Your task to perform on an android device: change the clock display to show seconds Image 0: 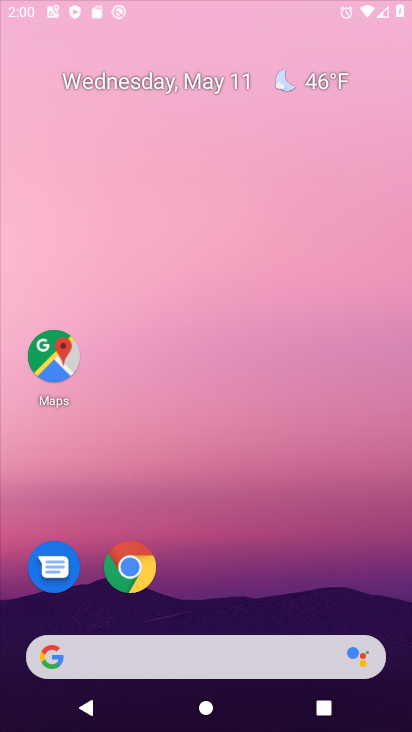
Step 0: drag from (181, 363) to (168, 104)
Your task to perform on an android device: change the clock display to show seconds Image 1: 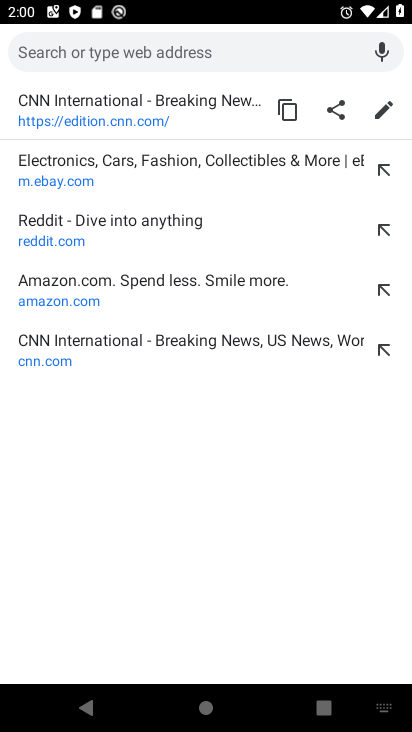
Step 1: press home button
Your task to perform on an android device: change the clock display to show seconds Image 2: 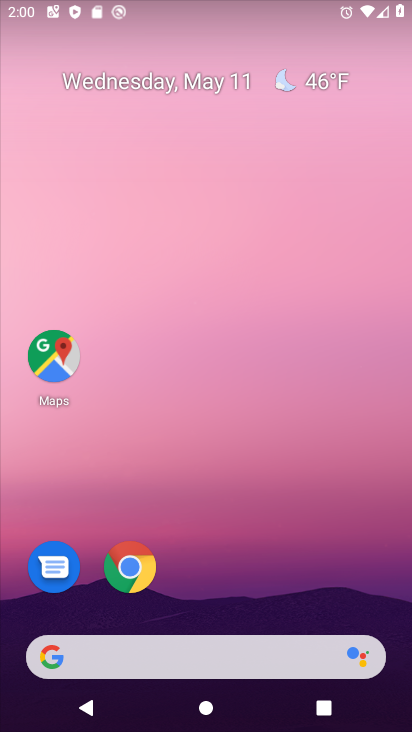
Step 2: drag from (215, 615) to (112, 43)
Your task to perform on an android device: change the clock display to show seconds Image 3: 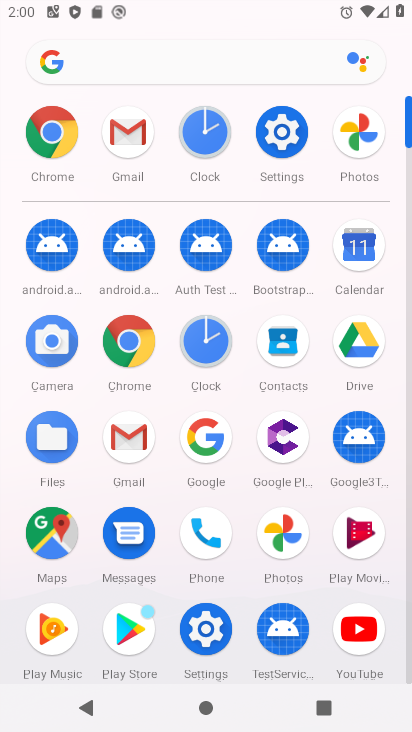
Step 3: click (207, 349)
Your task to perform on an android device: change the clock display to show seconds Image 4: 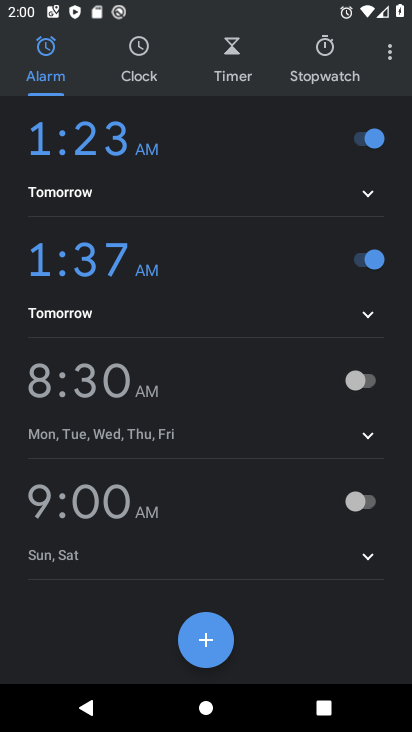
Step 4: click (392, 62)
Your task to perform on an android device: change the clock display to show seconds Image 5: 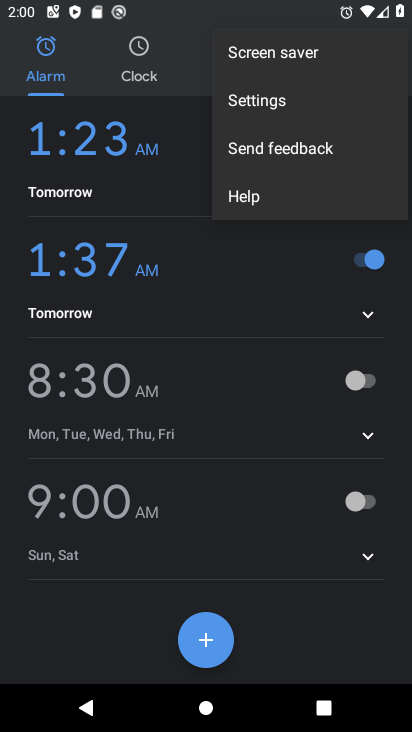
Step 5: click (270, 117)
Your task to perform on an android device: change the clock display to show seconds Image 6: 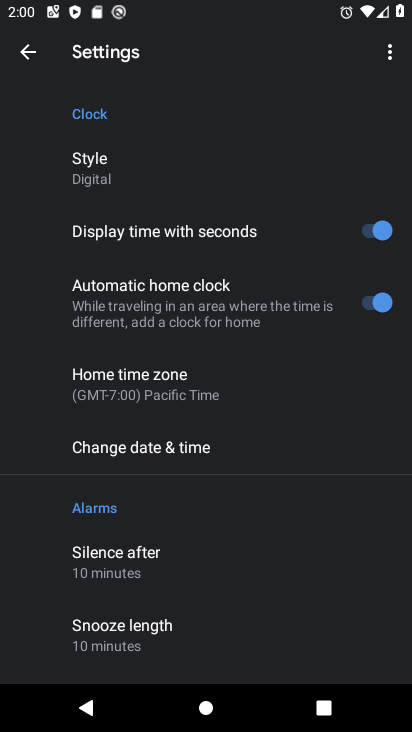
Step 6: click (370, 236)
Your task to perform on an android device: change the clock display to show seconds Image 7: 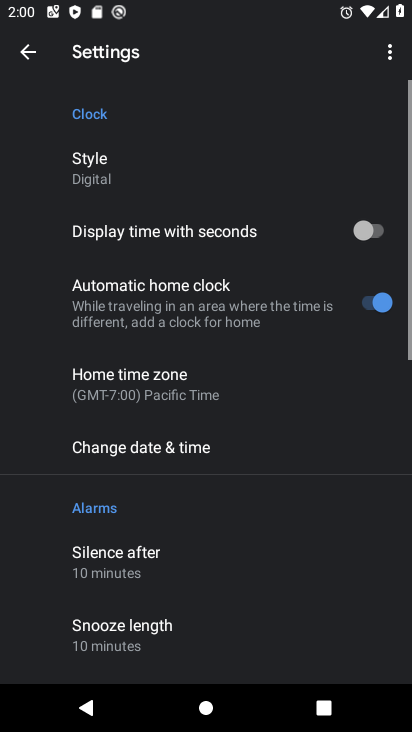
Step 7: task complete